Your task to perform on an android device: empty trash in the gmail app Image 0: 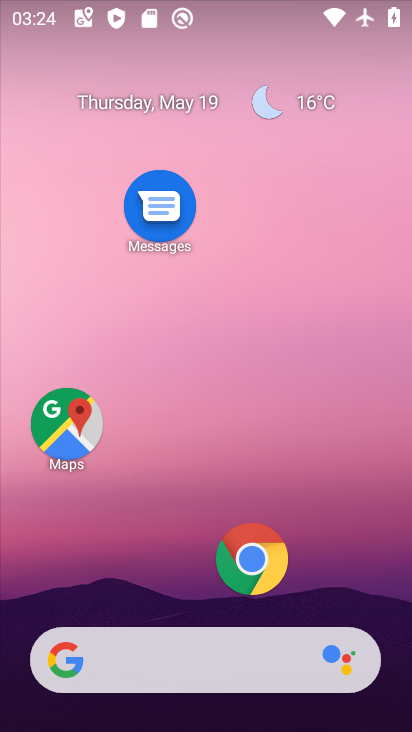
Step 0: drag from (185, 579) to (185, 262)
Your task to perform on an android device: empty trash in the gmail app Image 1: 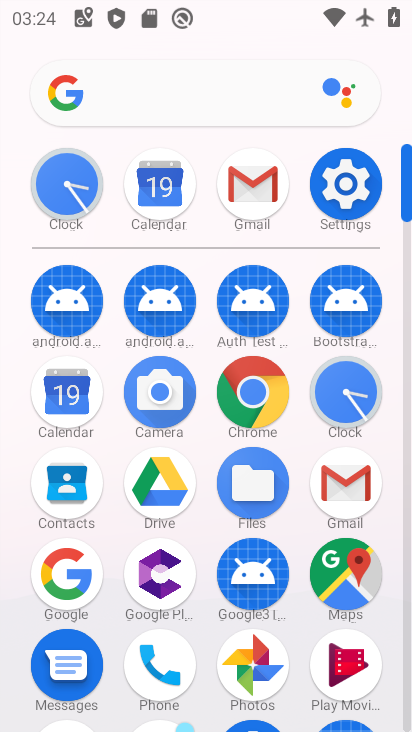
Step 1: click (249, 210)
Your task to perform on an android device: empty trash in the gmail app Image 2: 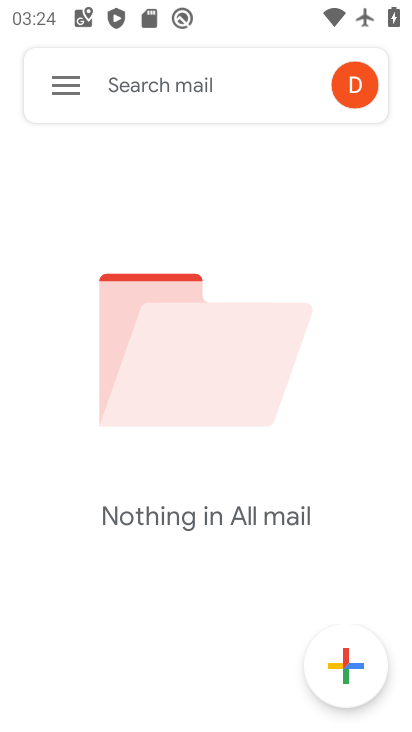
Step 2: click (79, 92)
Your task to perform on an android device: empty trash in the gmail app Image 3: 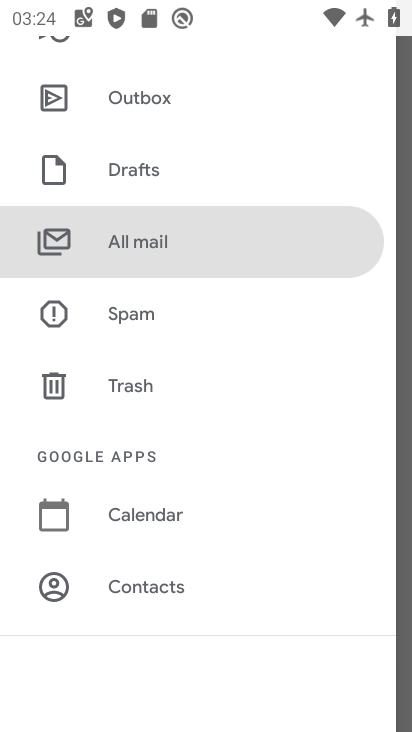
Step 3: click (117, 374)
Your task to perform on an android device: empty trash in the gmail app Image 4: 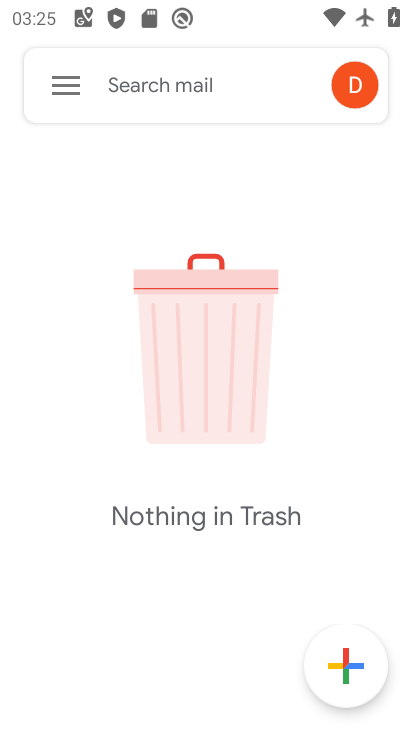
Step 4: task complete